Your task to perform on an android device: open a new tab in the chrome app Image 0: 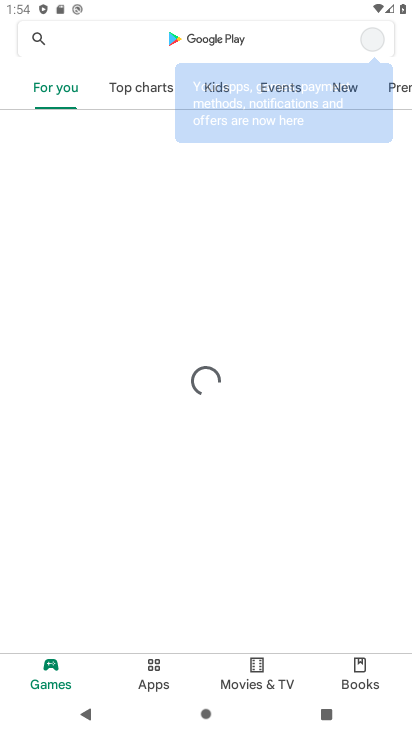
Step 0: press home button
Your task to perform on an android device: open a new tab in the chrome app Image 1: 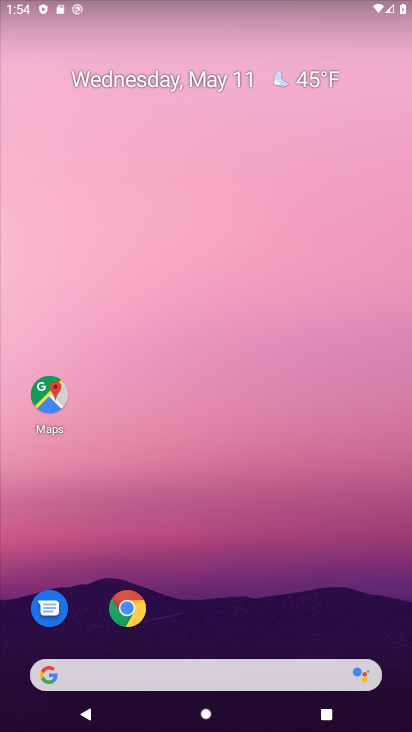
Step 1: drag from (226, 581) to (235, 95)
Your task to perform on an android device: open a new tab in the chrome app Image 2: 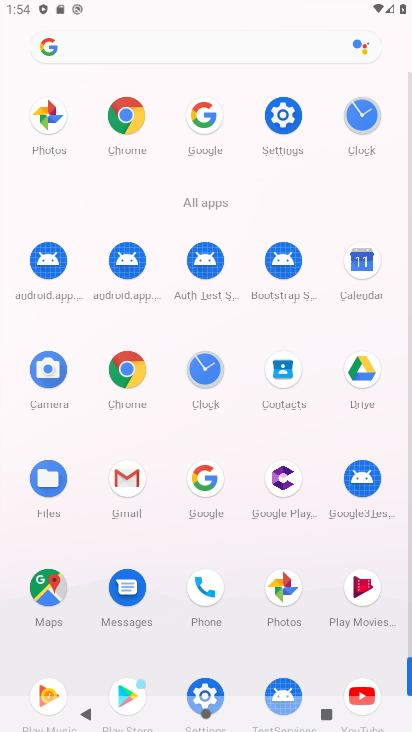
Step 2: click (126, 112)
Your task to perform on an android device: open a new tab in the chrome app Image 3: 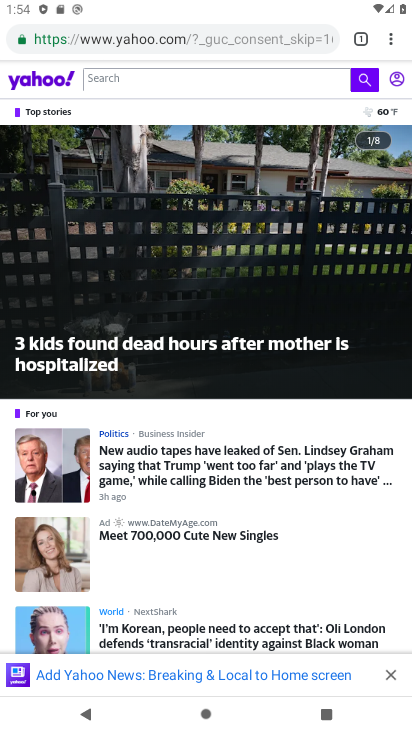
Step 3: click (361, 39)
Your task to perform on an android device: open a new tab in the chrome app Image 4: 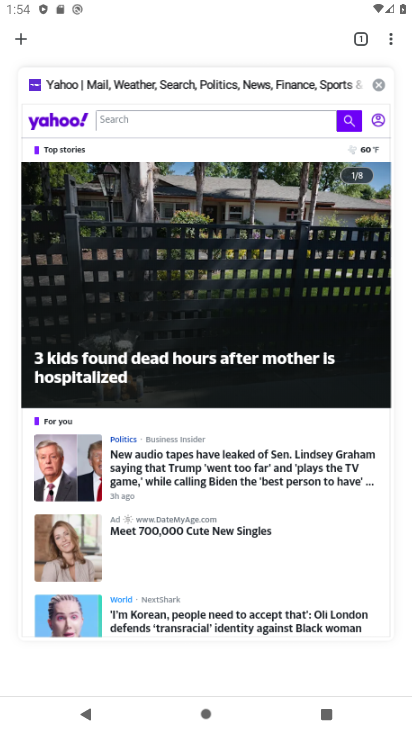
Step 4: click (9, 40)
Your task to perform on an android device: open a new tab in the chrome app Image 5: 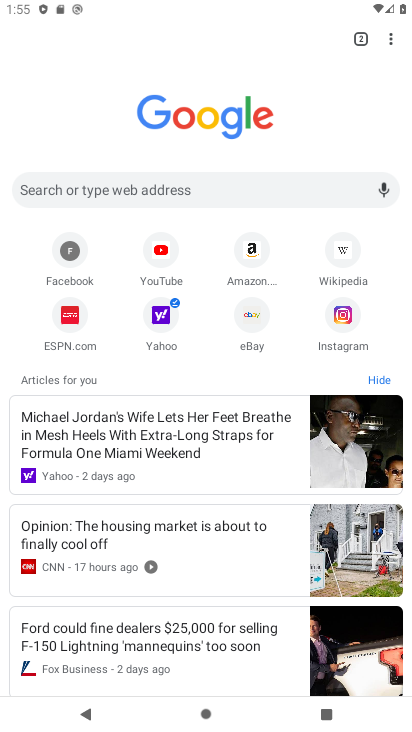
Step 5: task complete